Your task to perform on an android device: Add dell alienware to the cart on costco.com Image 0: 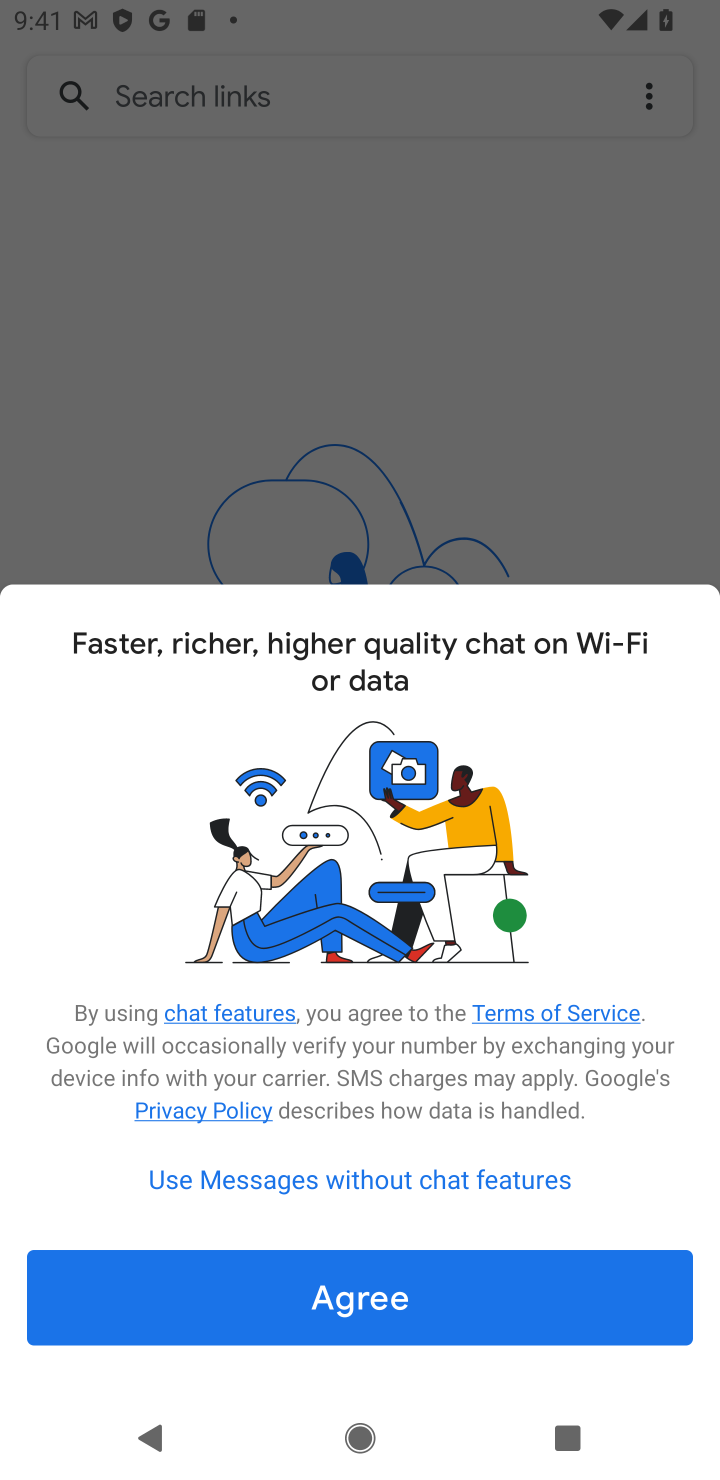
Step 0: press home button
Your task to perform on an android device: Add dell alienware to the cart on costco.com Image 1: 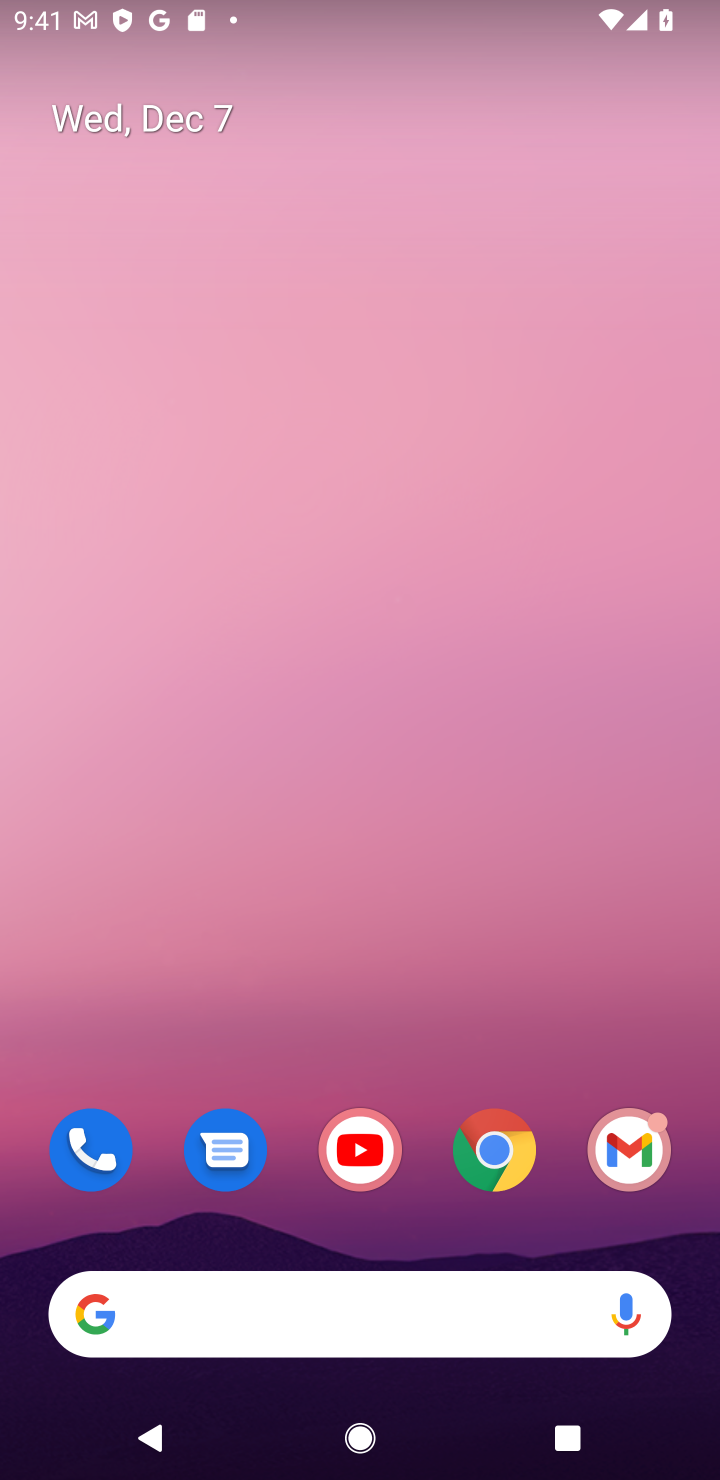
Step 1: click (461, 1144)
Your task to perform on an android device: Add dell alienware to the cart on costco.com Image 2: 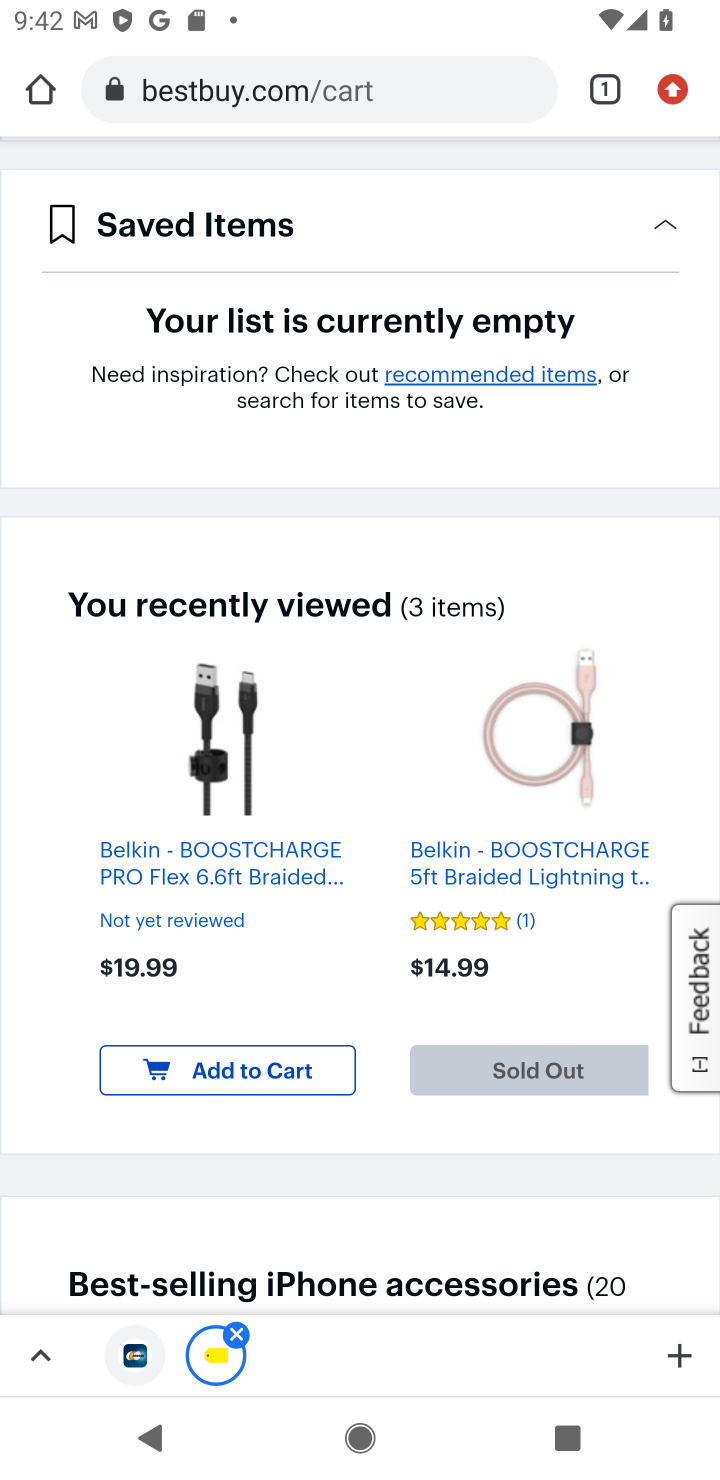
Step 2: click (419, 96)
Your task to perform on an android device: Add dell alienware to the cart on costco.com Image 3: 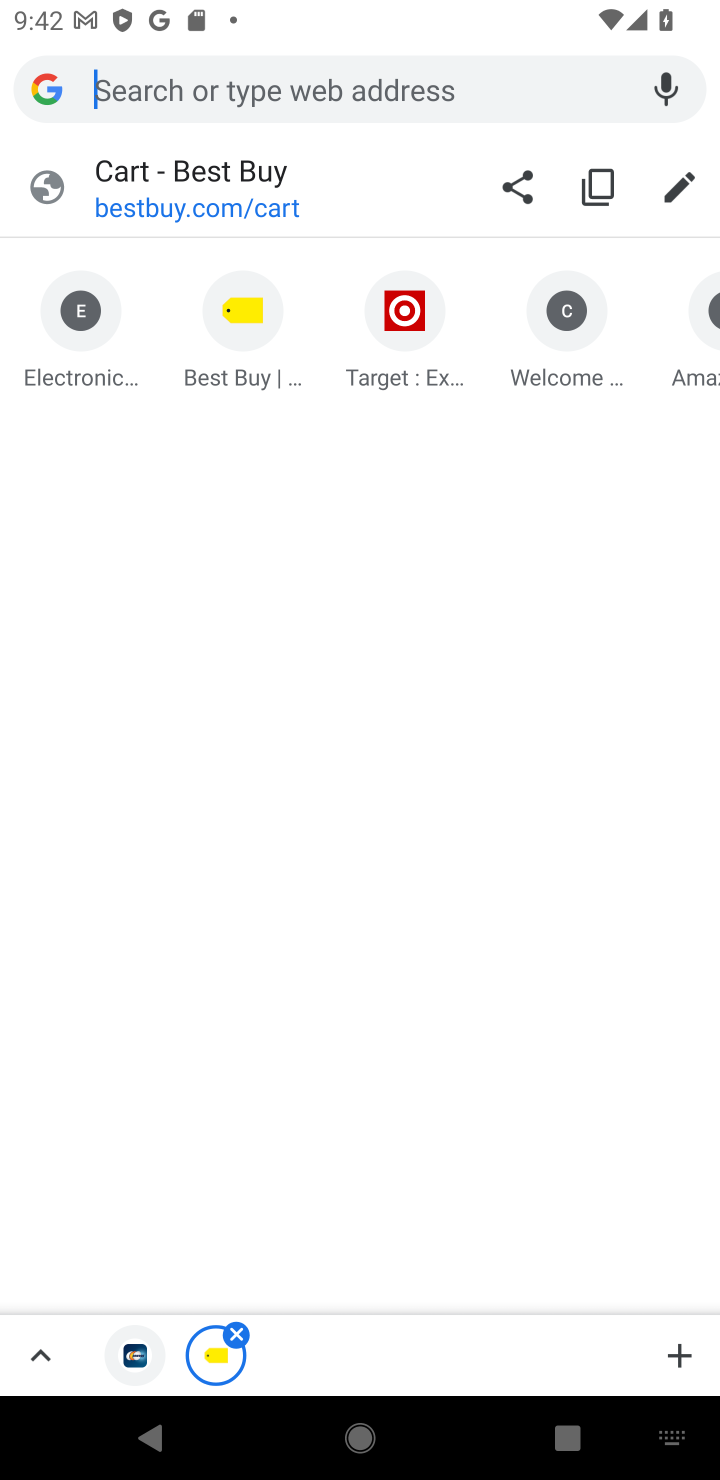
Step 3: press enter
Your task to perform on an android device: Add dell alienware to the cart on costco.com Image 4: 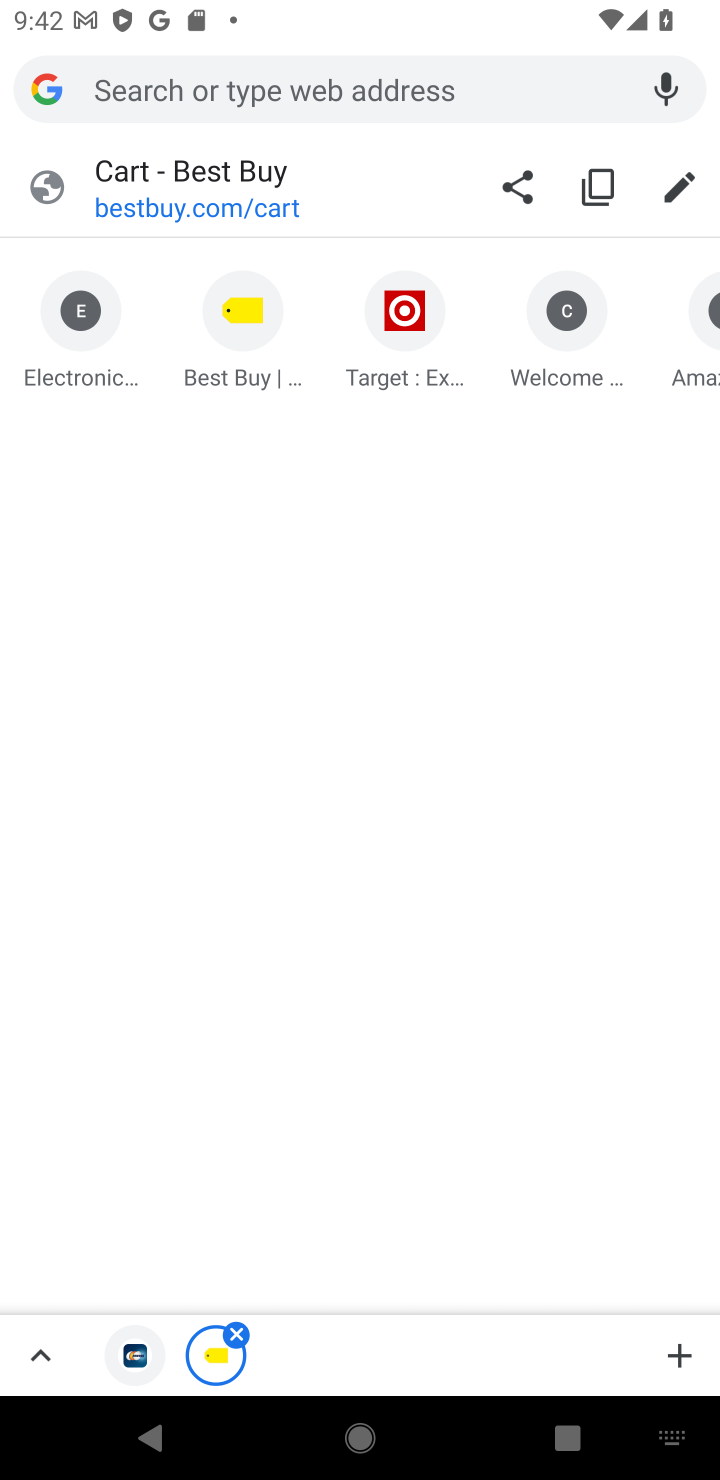
Step 4: type "costco.com"
Your task to perform on an android device: Add dell alienware to the cart on costco.com Image 5: 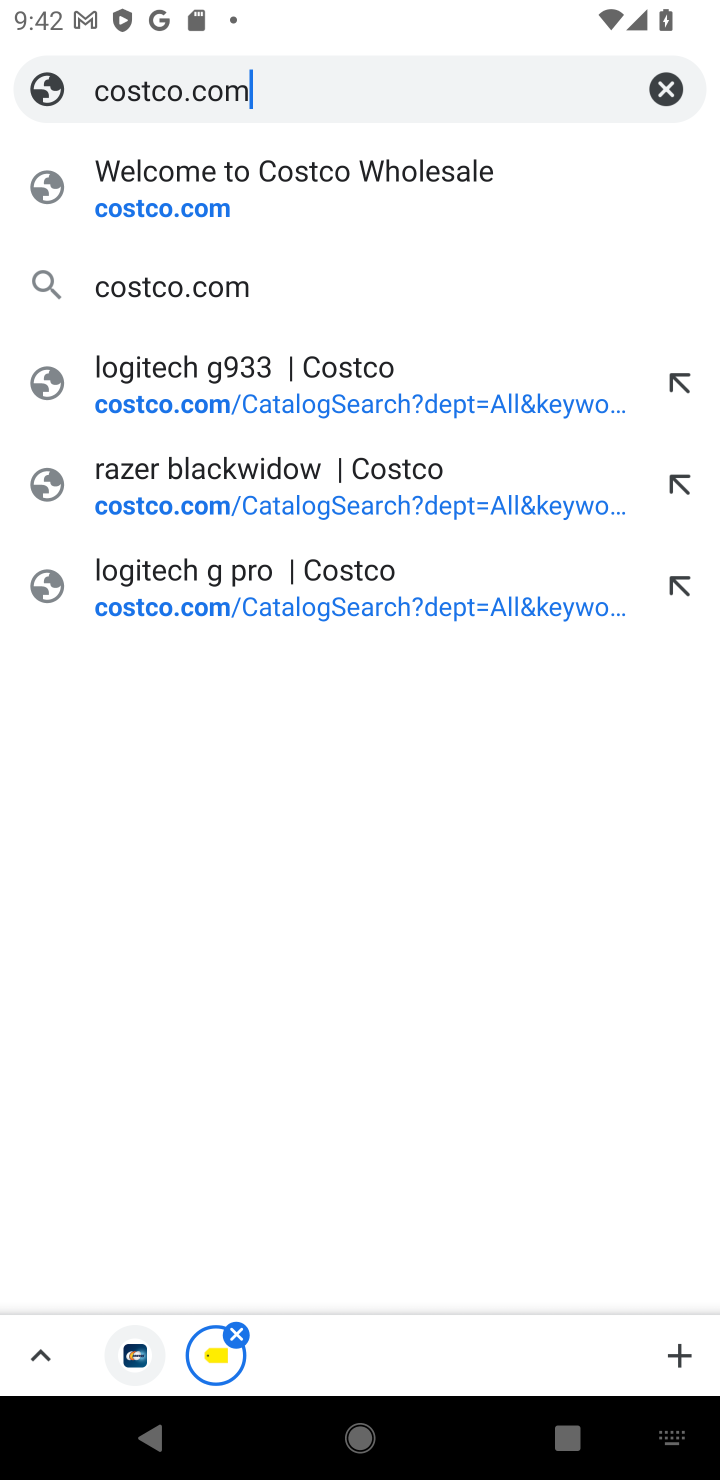
Step 5: click (220, 295)
Your task to perform on an android device: Add dell alienware to the cart on costco.com Image 6: 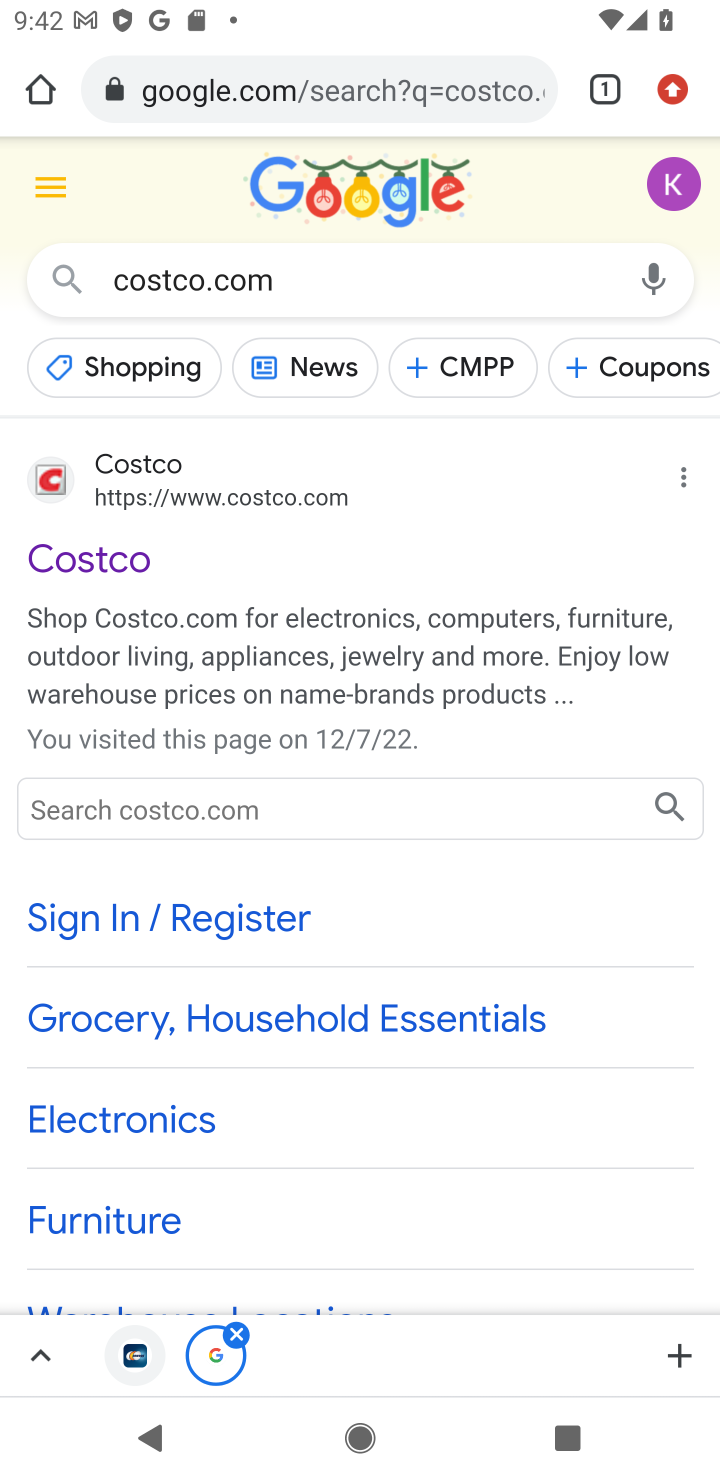
Step 6: click (271, 497)
Your task to perform on an android device: Add dell alienware to the cart on costco.com Image 7: 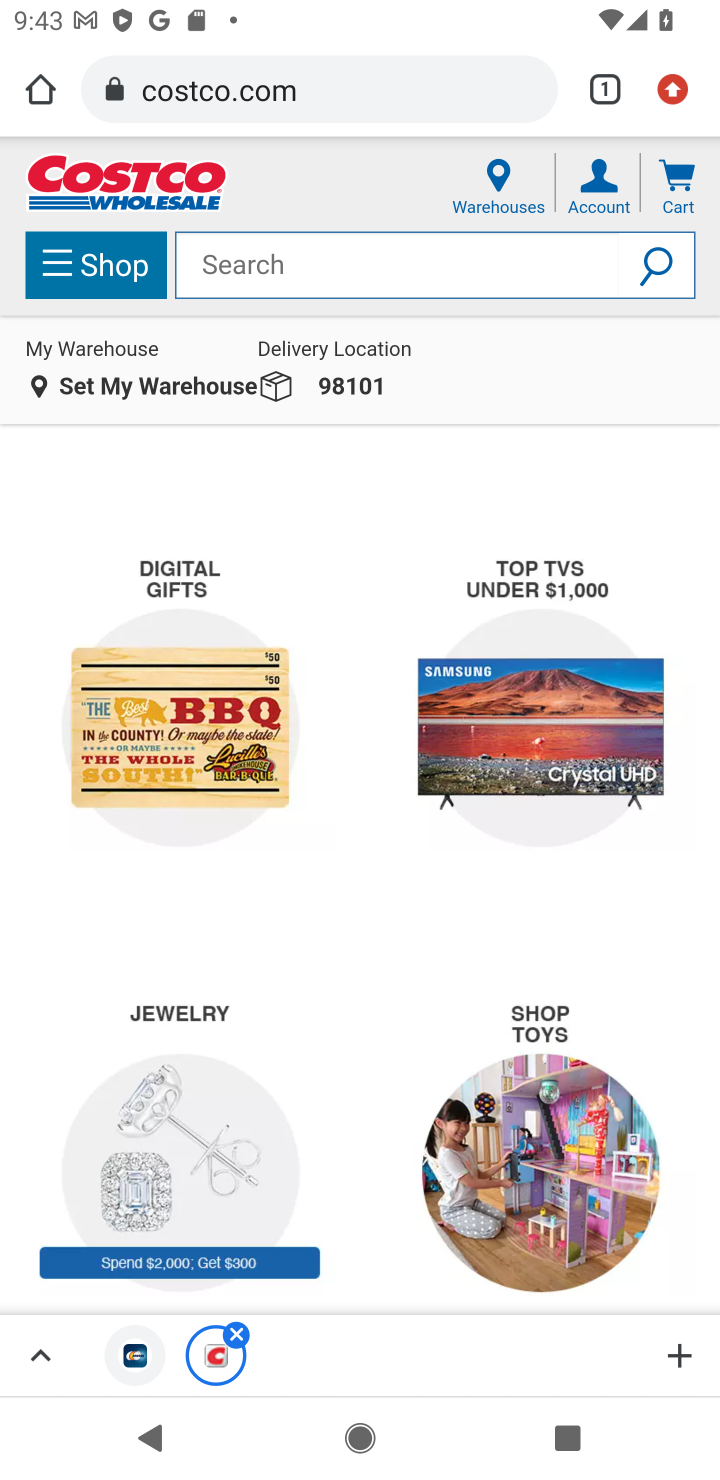
Step 7: click (443, 275)
Your task to perform on an android device: Add dell alienware to the cart on costco.com Image 8: 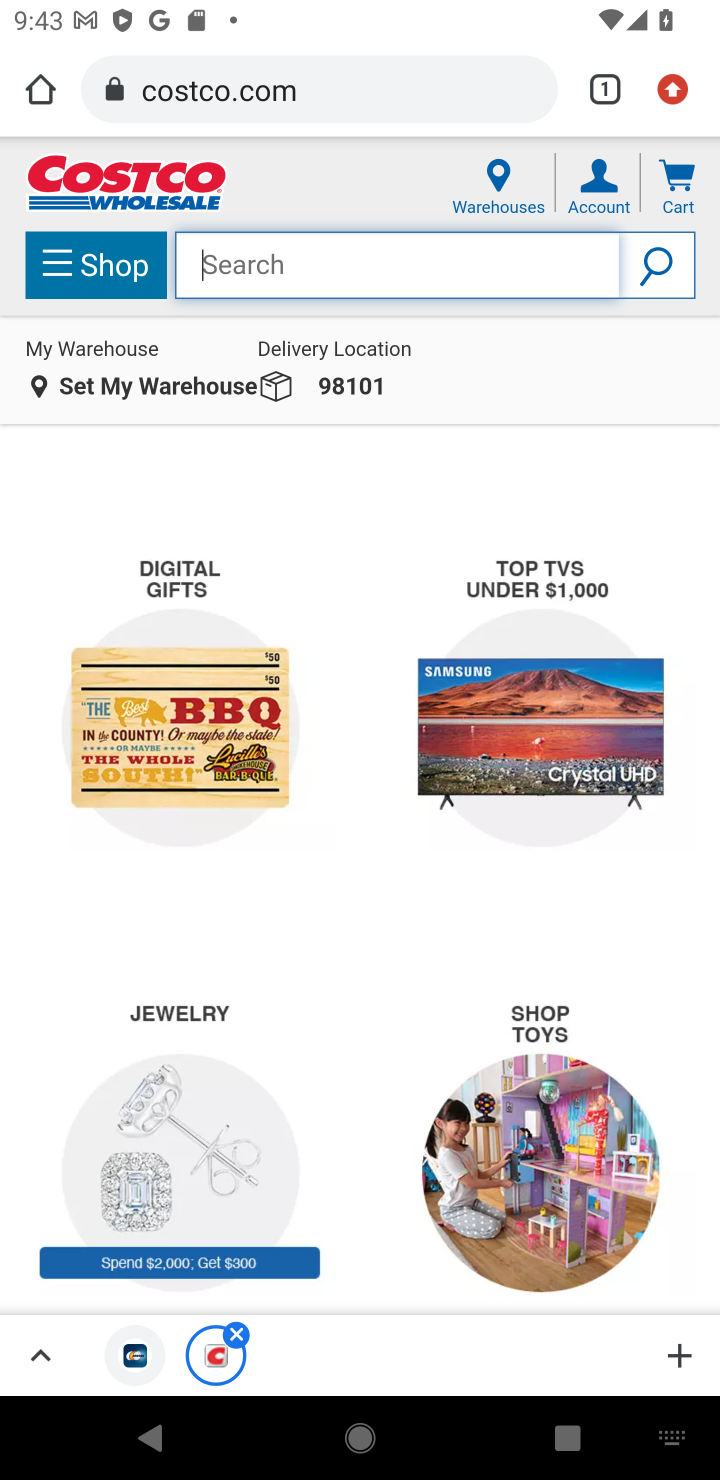
Step 8: press enter
Your task to perform on an android device: Add dell alienware to the cart on costco.com Image 9: 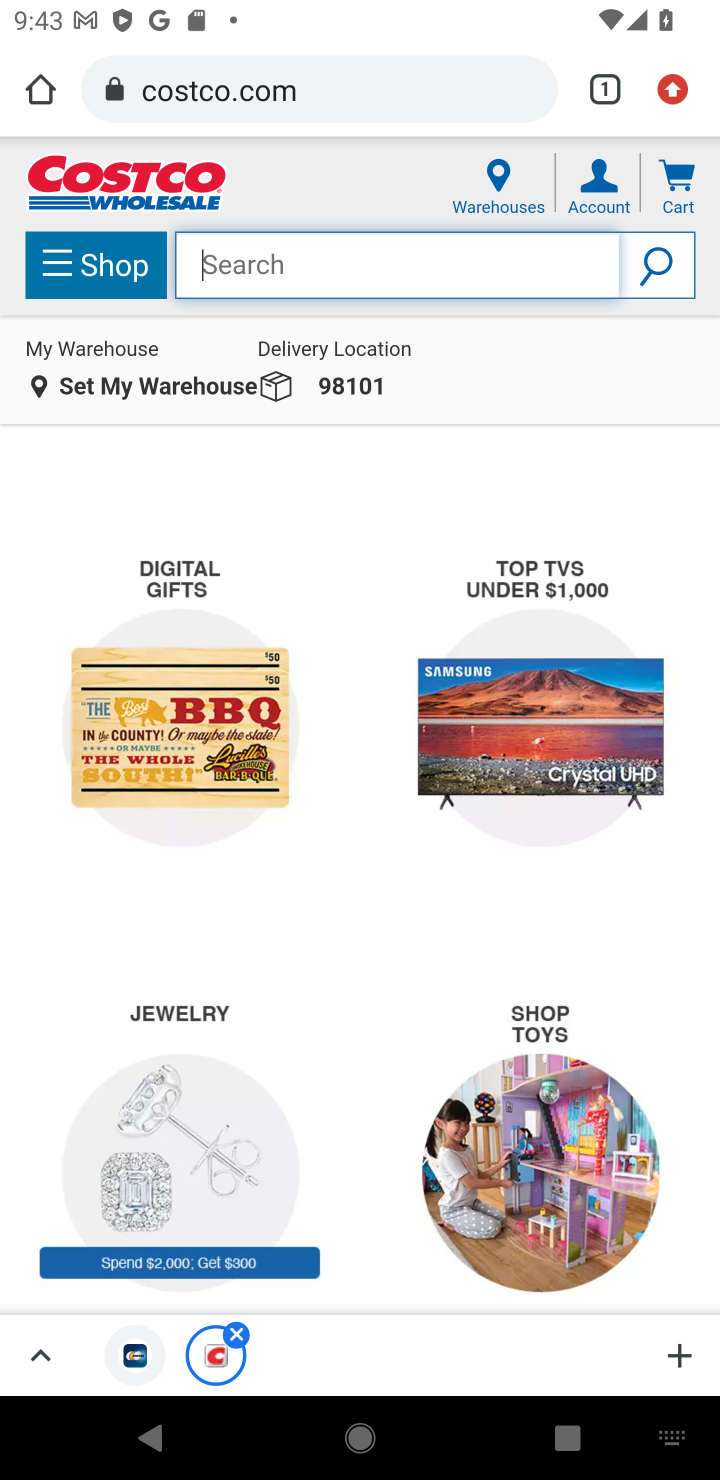
Step 9: type "costco.com"
Your task to perform on an android device: Add dell alienware to the cart on costco.com Image 10: 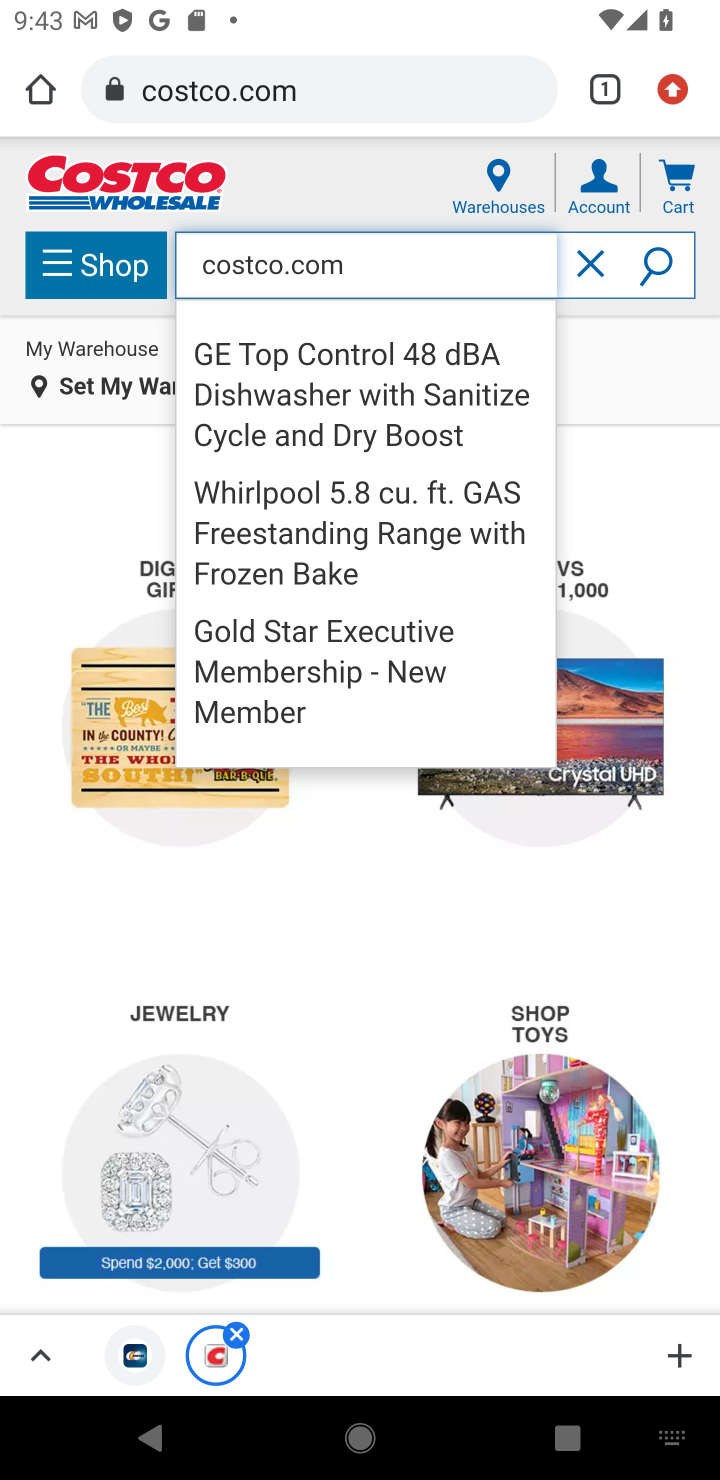
Step 10: click (490, 259)
Your task to perform on an android device: Add dell alienware to the cart on costco.com Image 11: 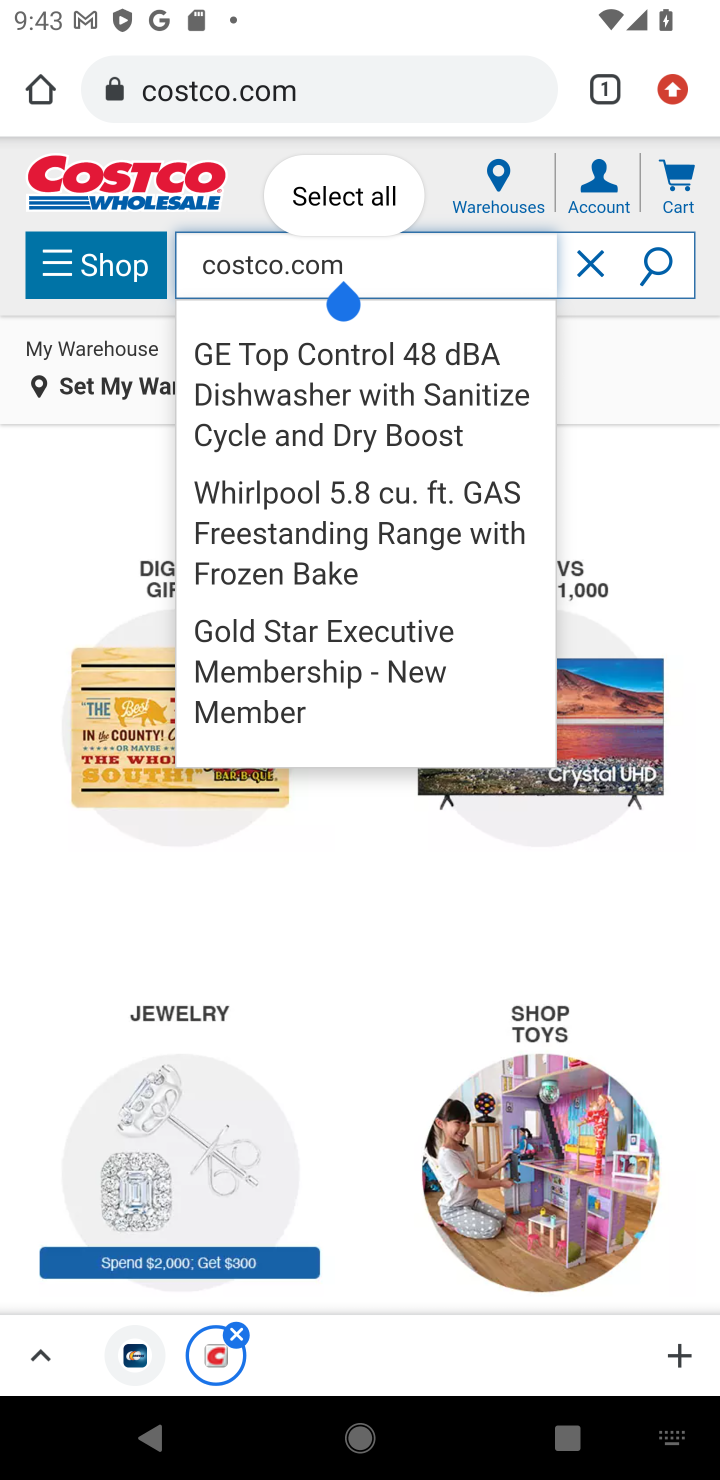
Step 11: click (589, 261)
Your task to perform on an android device: Add dell alienware to the cart on costco.com Image 12: 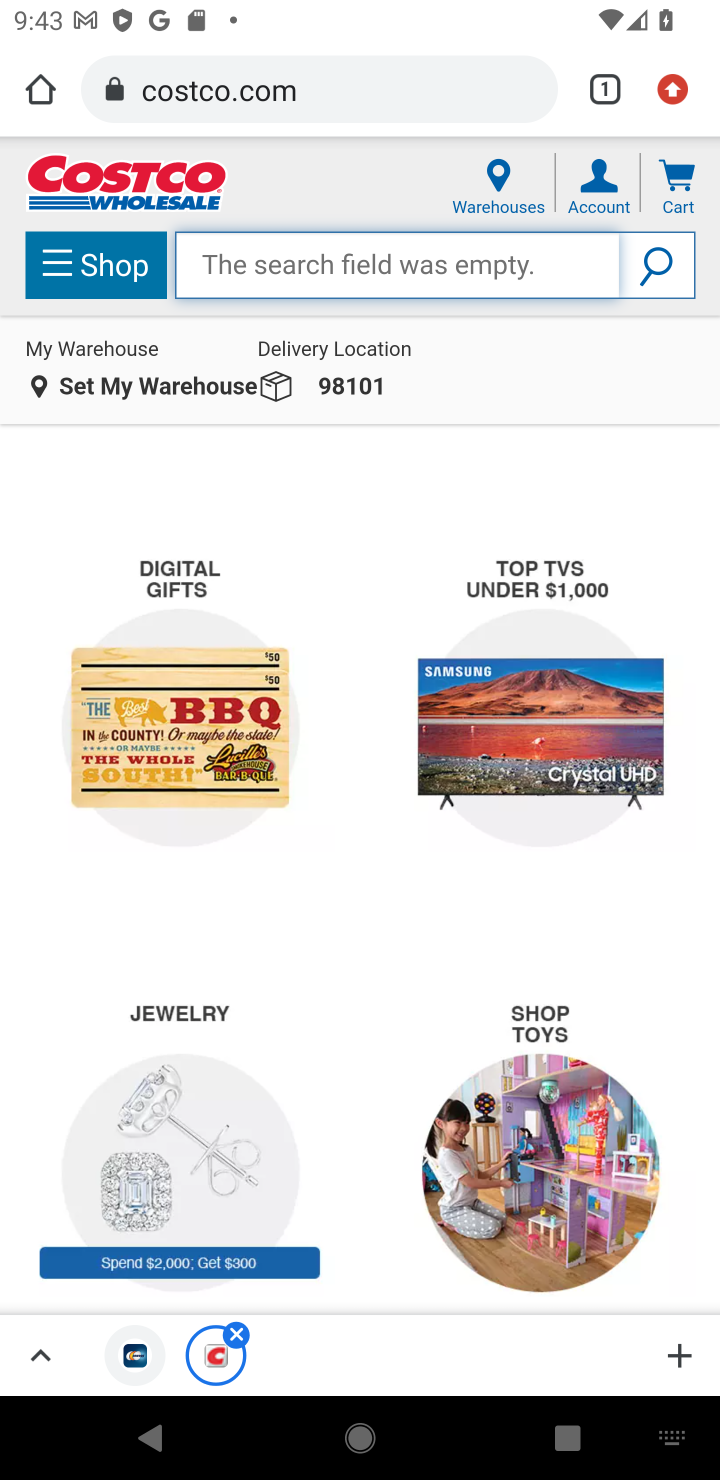
Step 12: click (448, 264)
Your task to perform on an android device: Add dell alienware to the cart on costco.com Image 13: 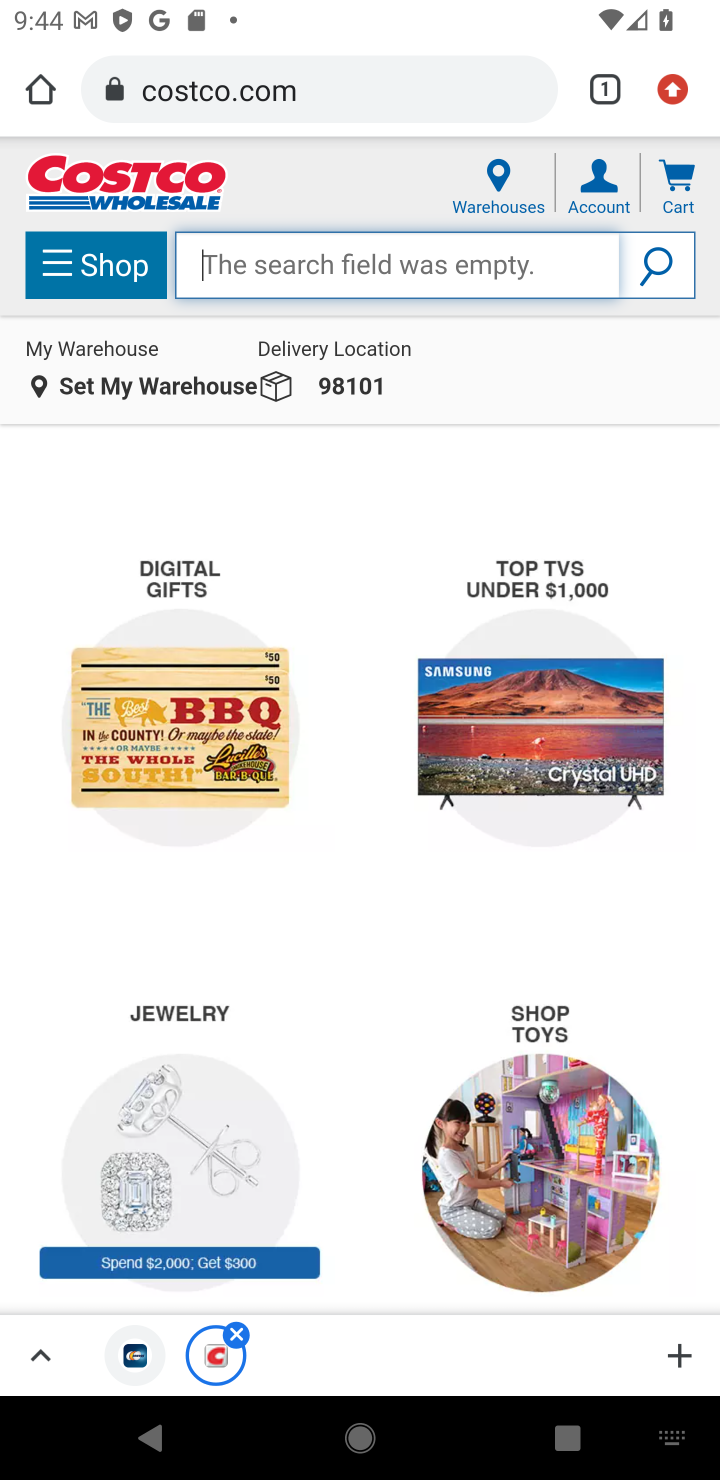
Step 13: type "dell alienware"
Your task to perform on an android device: Add dell alienware to the cart on costco.com Image 14: 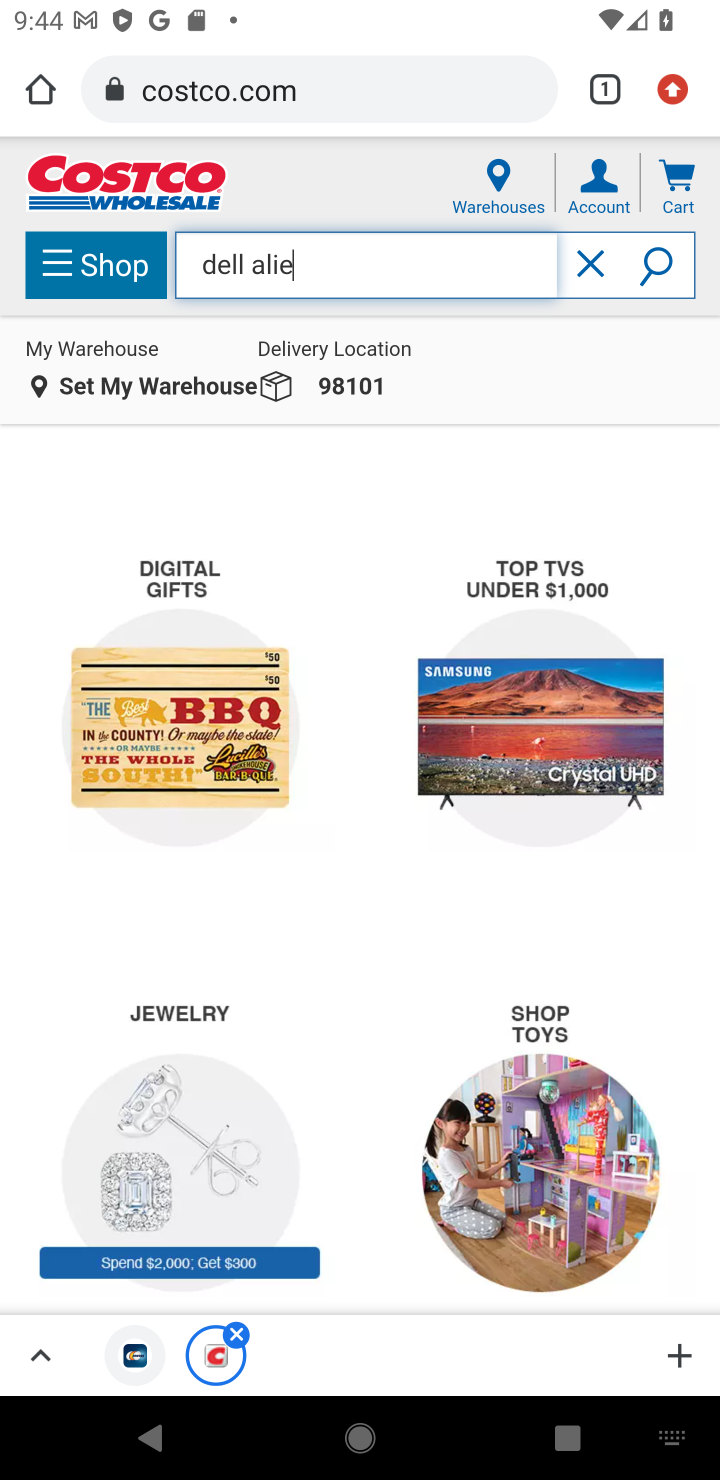
Step 14: press enter
Your task to perform on an android device: Add dell alienware to the cart on costco.com Image 15: 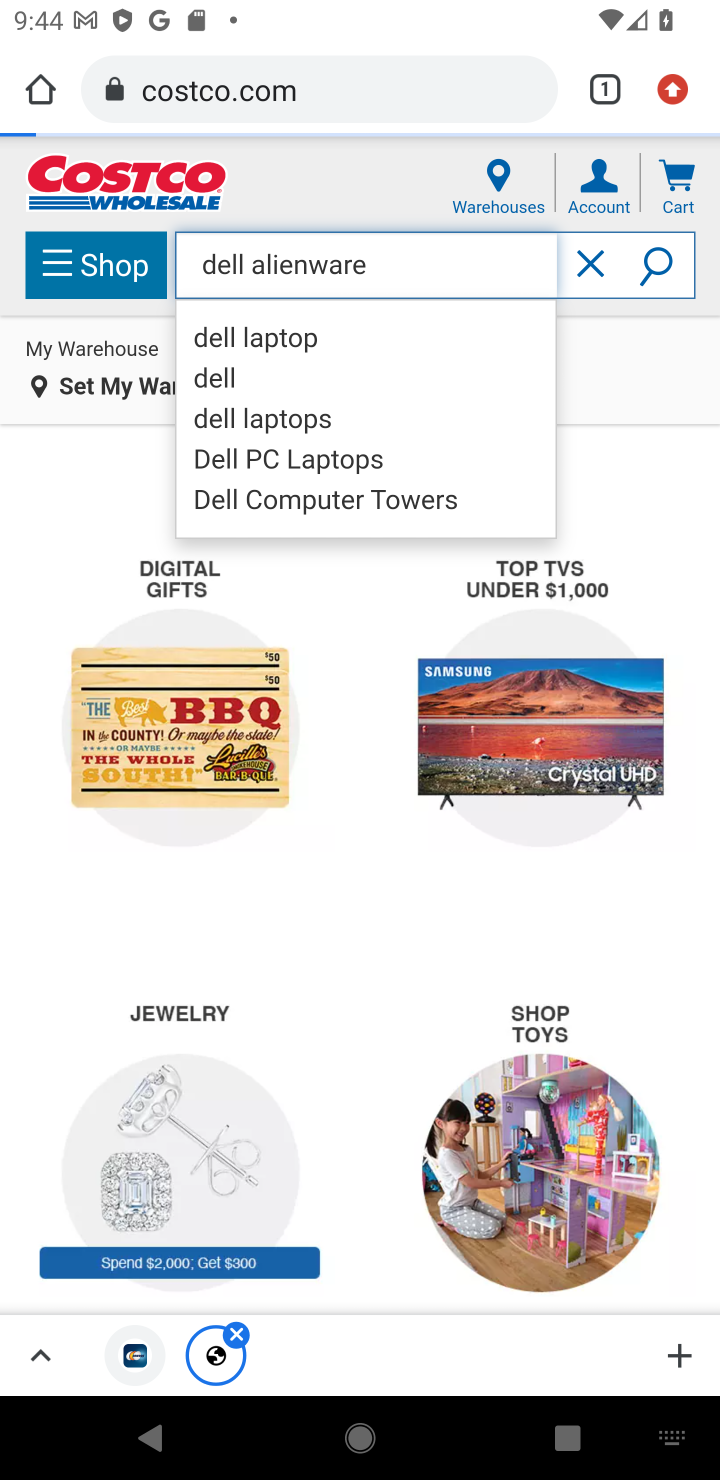
Step 15: click (677, 264)
Your task to perform on an android device: Add dell alienware to the cart on costco.com Image 16: 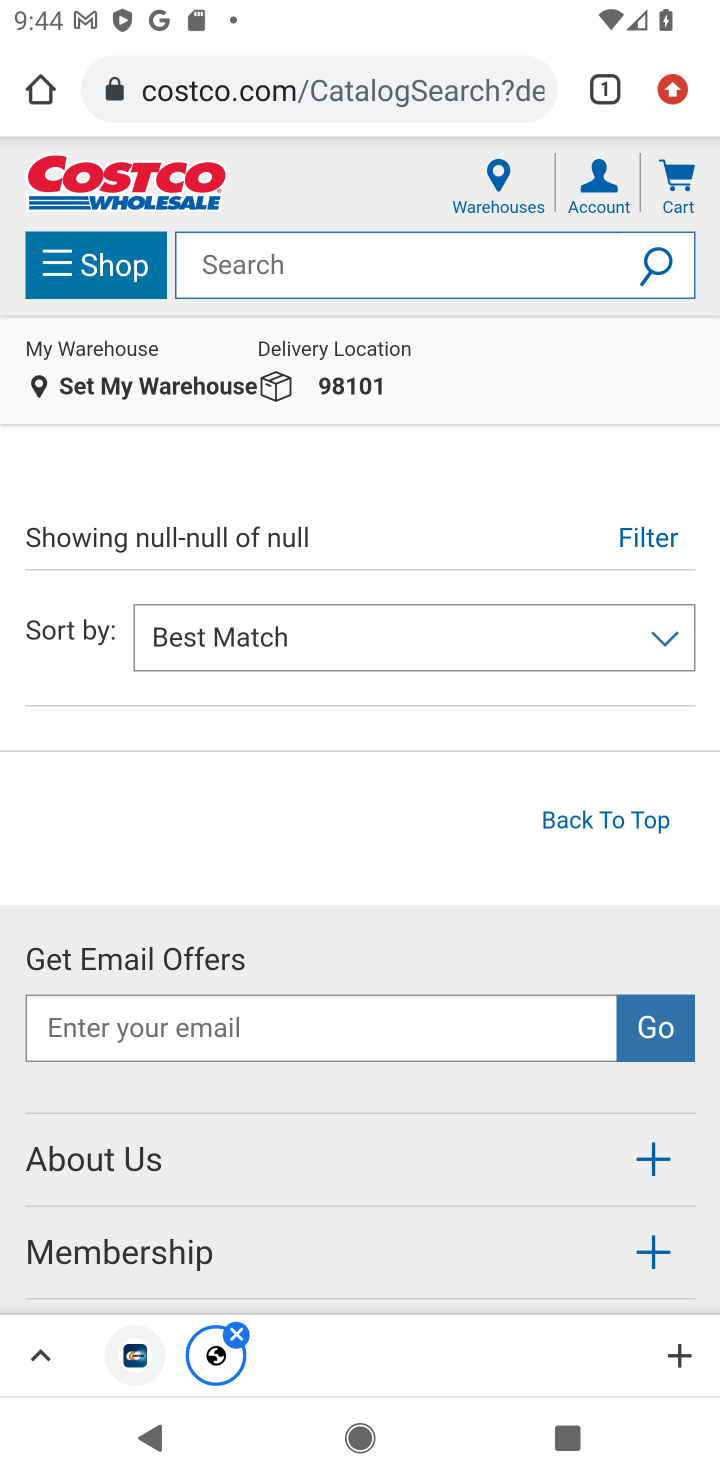
Step 16: task complete